Your task to perform on an android device: check data usage Image 0: 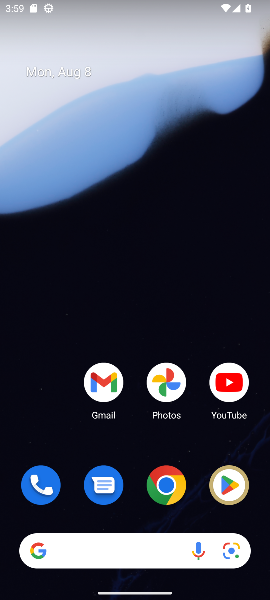
Step 0: drag from (103, 292) to (89, 98)
Your task to perform on an android device: check data usage Image 1: 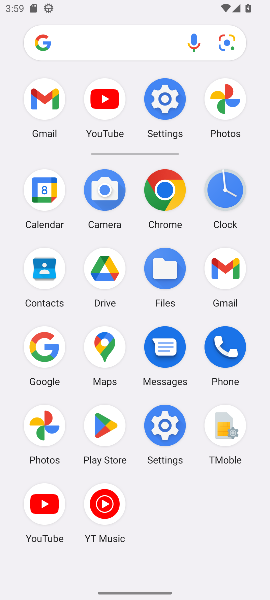
Step 1: click (175, 103)
Your task to perform on an android device: check data usage Image 2: 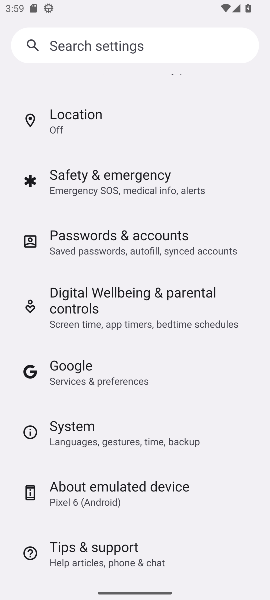
Step 2: drag from (60, 97) to (95, 368)
Your task to perform on an android device: check data usage Image 3: 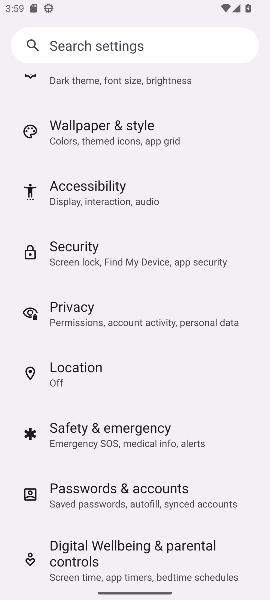
Step 3: drag from (94, 164) to (137, 487)
Your task to perform on an android device: check data usage Image 4: 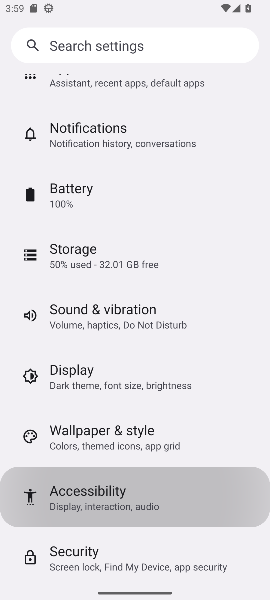
Step 4: drag from (74, 189) to (116, 449)
Your task to perform on an android device: check data usage Image 5: 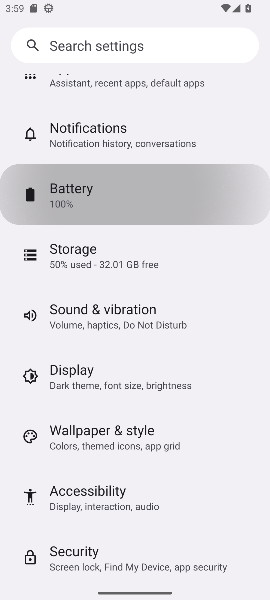
Step 5: drag from (78, 169) to (116, 467)
Your task to perform on an android device: check data usage Image 6: 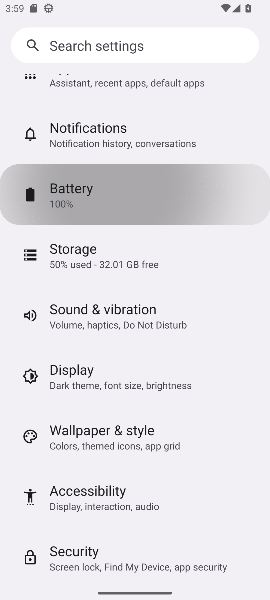
Step 6: drag from (98, 137) to (139, 433)
Your task to perform on an android device: check data usage Image 7: 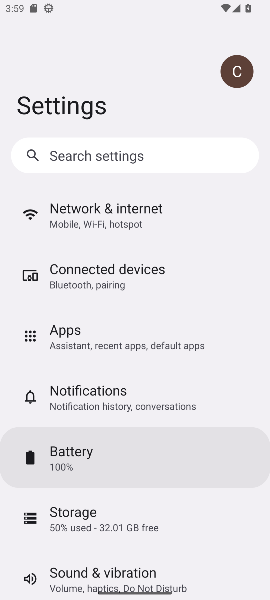
Step 7: drag from (108, 190) to (146, 465)
Your task to perform on an android device: check data usage Image 8: 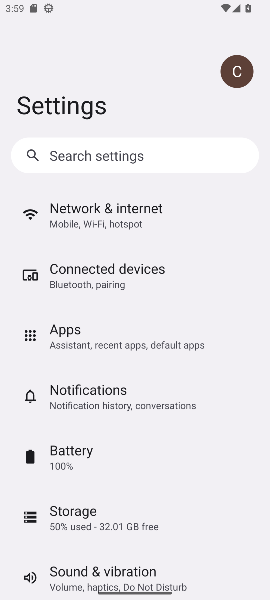
Step 8: drag from (104, 126) to (115, 479)
Your task to perform on an android device: check data usage Image 9: 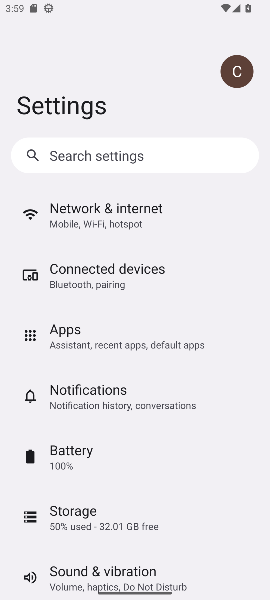
Step 9: click (112, 217)
Your task to perform on an android device: check data usage Image 10: 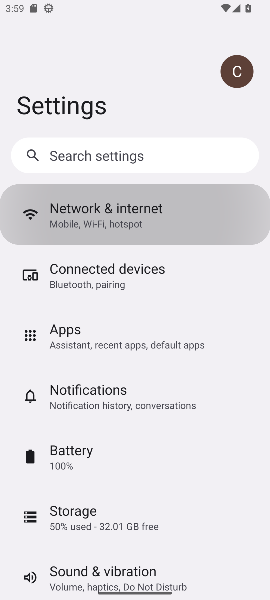
Step 10: click (116, 220)
Your task to perform on an android device: check data usage Image 11: 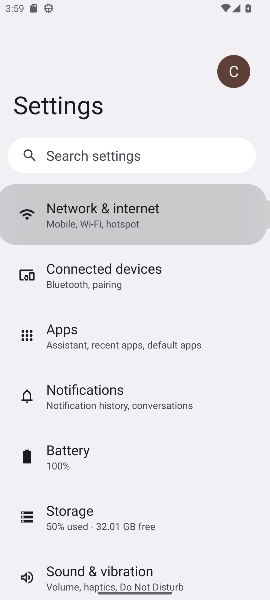
Step 11: click (116, 220)
Your task to perform on an android device: check data usage Image 12: 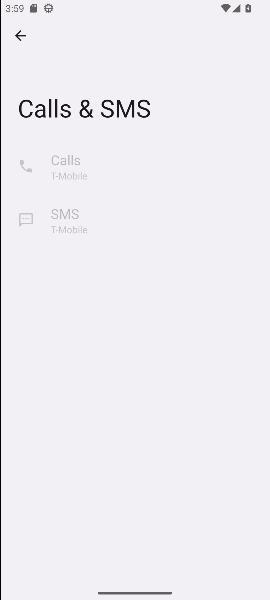
Step 12: drag from (164, 426) to (109, 40)
Your task to perform on an android device: check data usage Image 13: 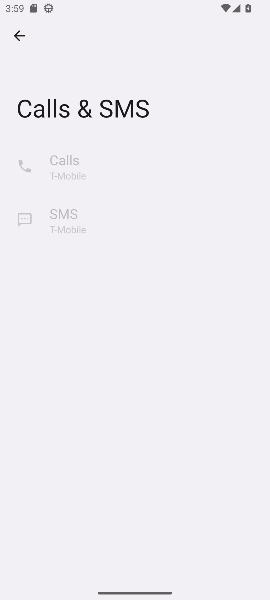
Step 13: drag from (110, 401) to (110, 35)
Your task to perform on an android device: check data usage Image 14: 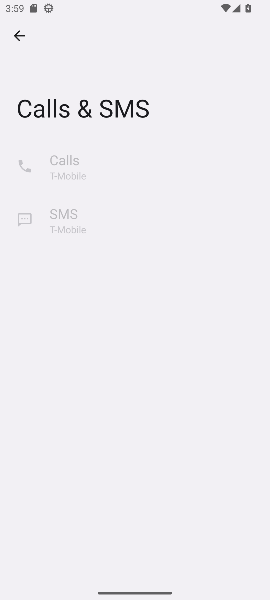
Step 14: click (14, 37)
Your task to perform on an android device: check data usage Image 15: 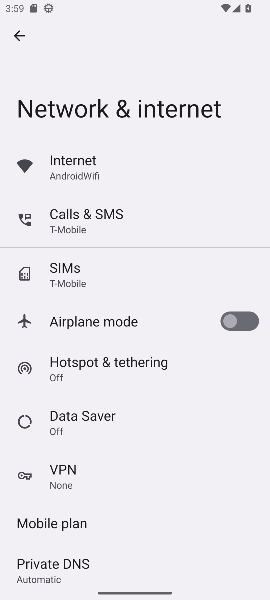
Step 15: task complete